Your task to perform on an android device: What's the weather? Image 0: 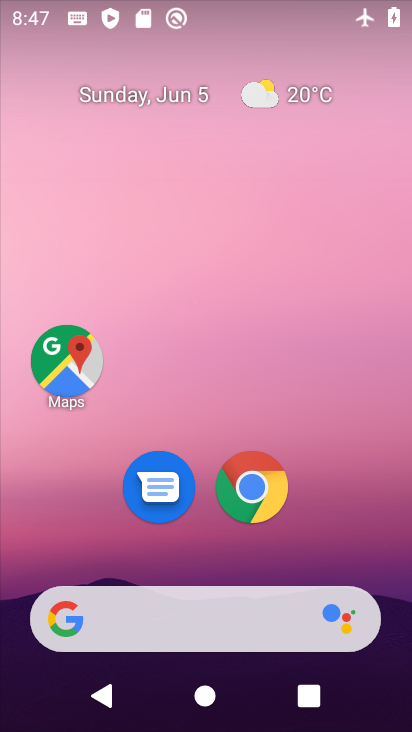
Step 0: drag from (262, 586) to (222, 384)
Your task to perform on an android device: What's the weather? Image 1: 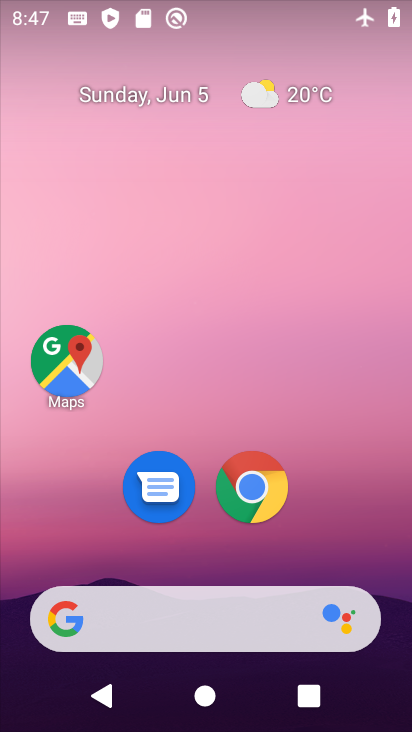
Step 1: drag from (217, 628) to (199, 218)
Your task to perform on an android device: What's the weather? Image 2: 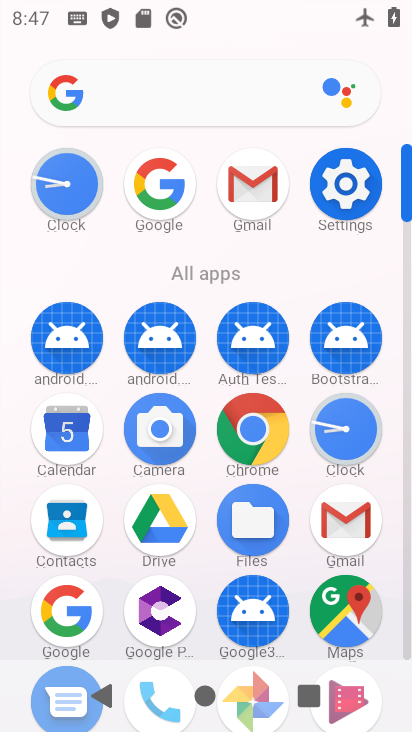
Step 2: click (61, 603)
Your task to perform on an android device: What's the weather? Image 3: 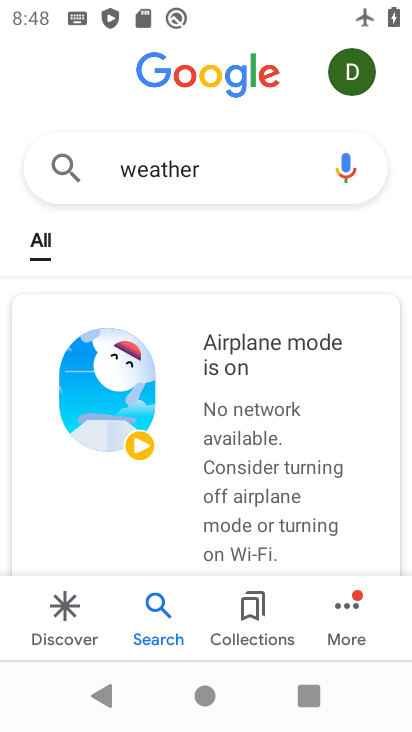
Step 3: task complete